Your task to perform on an android device: change keyboard looks Image 0: 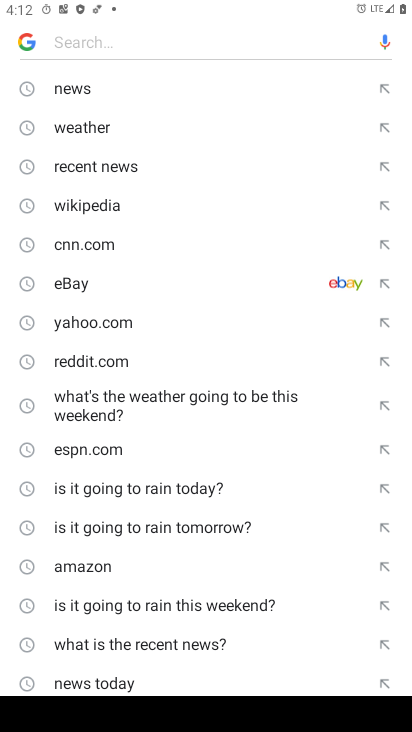
Step 0: press home button
Your task to perform on an android device: change keyboard looks Image 1: 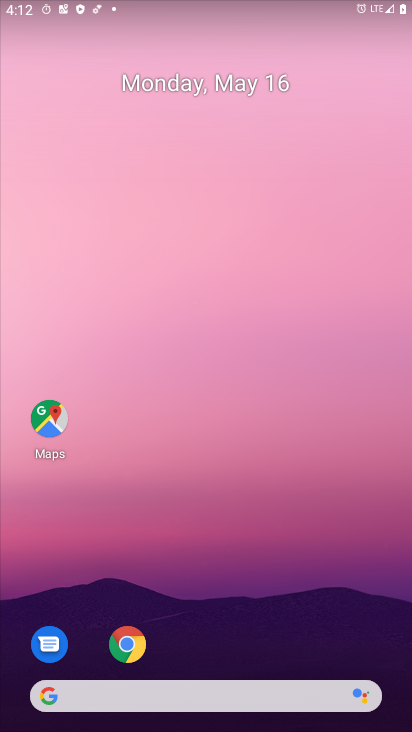
Step 1: drag from (225, 650) to (225, 234)
Your task to perform on an android device: change keyboard looks Image 2: 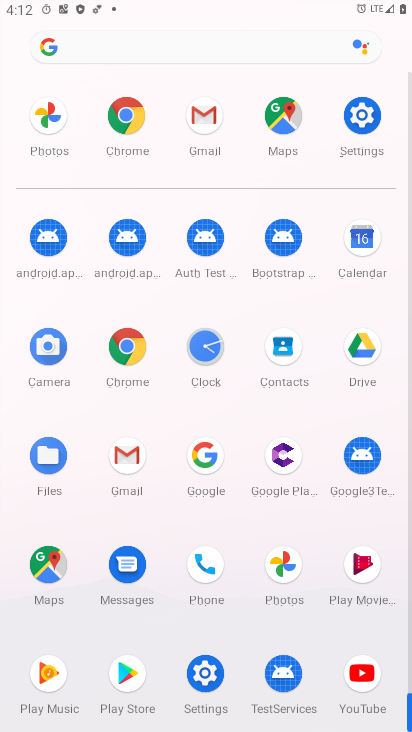
Step 2: drag from (239, 601) to (305, 344)
Your task to perform on an android device: change keyboard looks Image 3: 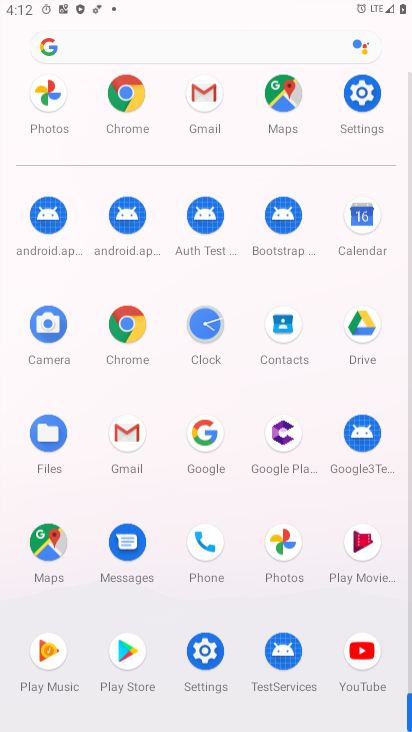
Step 3: click (315, 279)
Your task to perform on an android device: change keyboard looks Image 4: 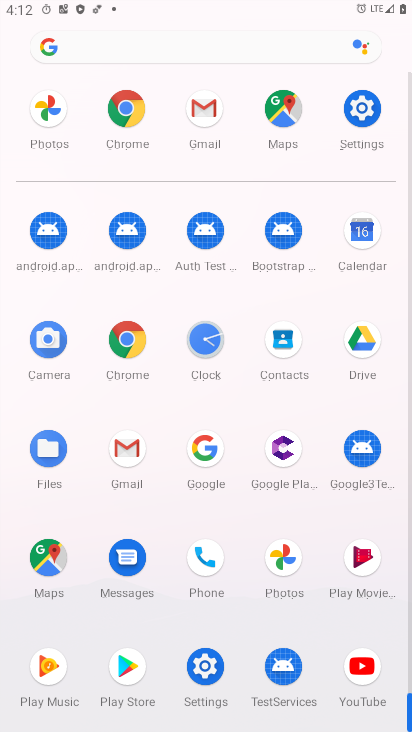
Step 4: click (216, 679)
Your task to perform on an android device: change keyboard looks Image 5: 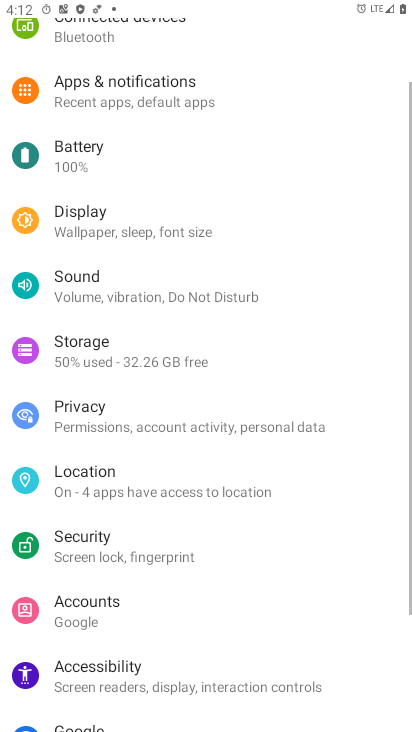
Step 5: drag from (224, 586) to (229, 323)
Your task to perform on an android device: change keyboard looks Image 6: 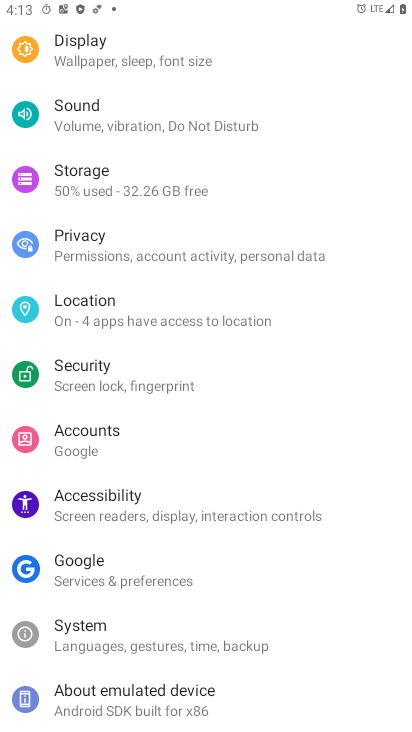
Step 6: click (232, 652)
Your task to perform on an android device: change keyboard looks Image 7: 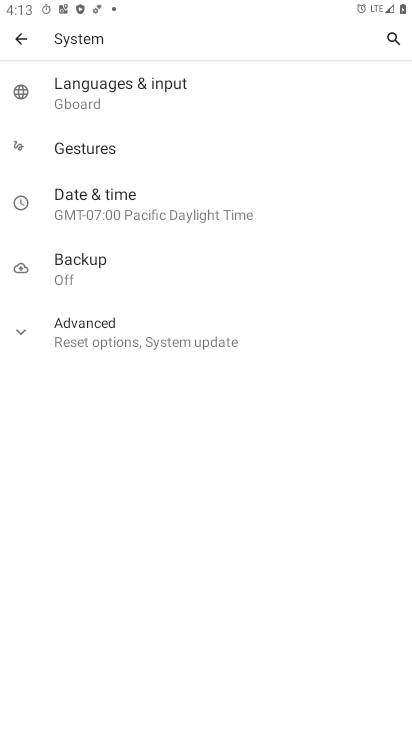
Step 7: click (166, 101)
Your task to perform on an android device: change keyboard looks Image 8: 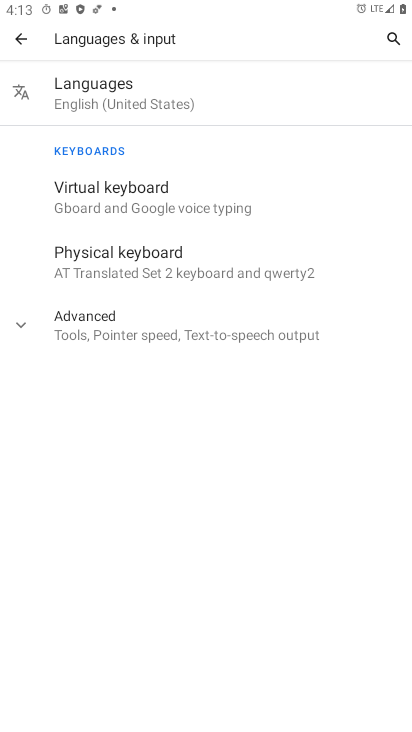
Step 8: click (174, 201)
Your task to perform on an android device: change keyboard looks Image 9: 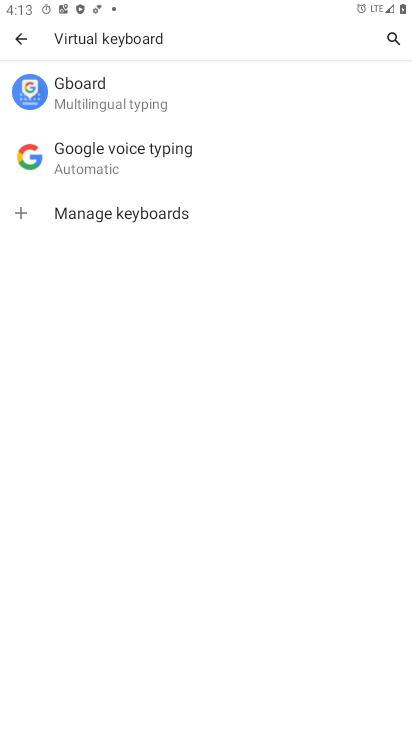
Step 9: click (193, 105)
Your task to perform on an android device: change keyboard looks Image 10: 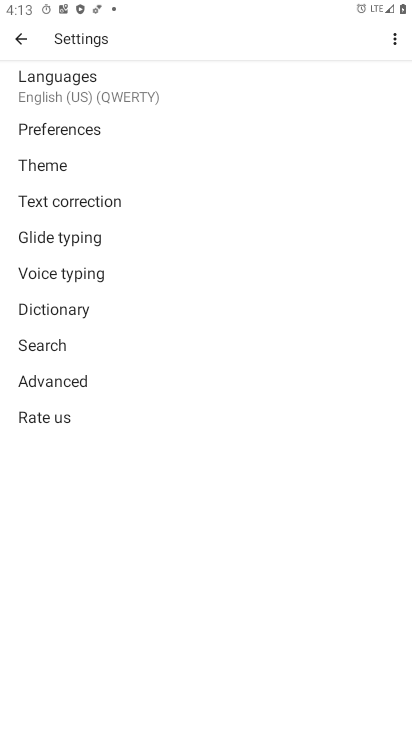
Step 10: click (159, 164)
Your task to perform on an android device: change keyboard looks Image 11: 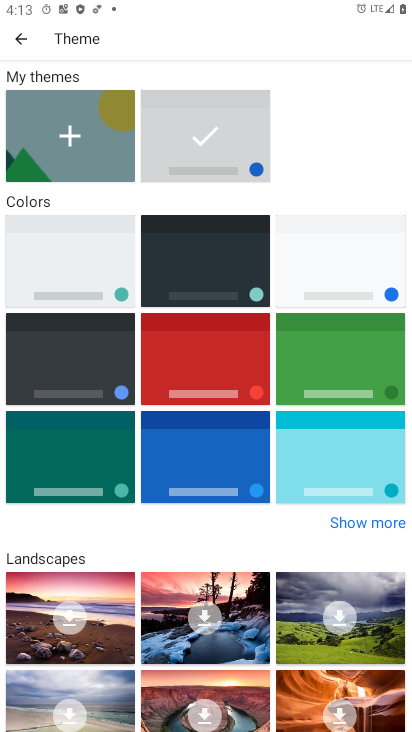
Step 11: click (190, 444)
Your task to perform on an android device: change keyboard looks Image 12: 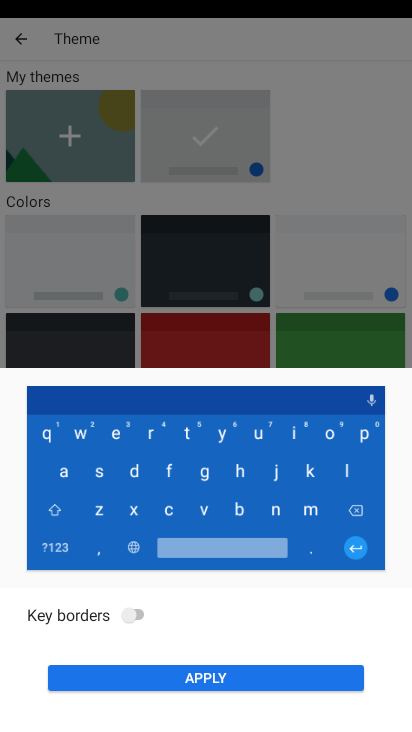
Step 12: click (285, 670)
Your task to perform on an android device: change keyboard looks Image 13: 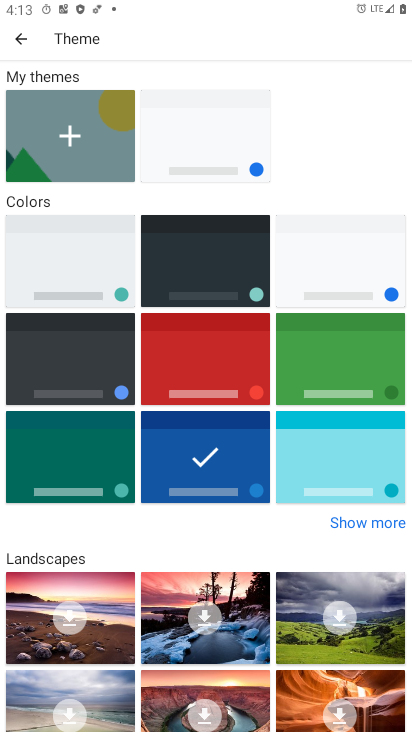
Step 13: task complete